Your task to perform on an android device: turn pop-ups on in chrome Image 0: 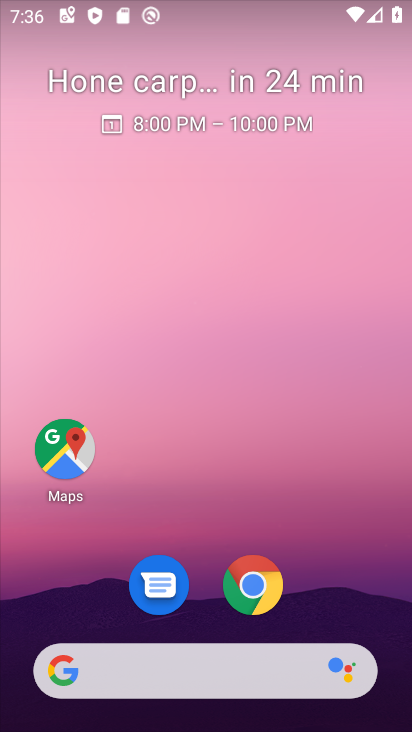
Step 0: click (265, 559)
Your task to perform on an android device: turn pop-ups on in chrome Image 1: 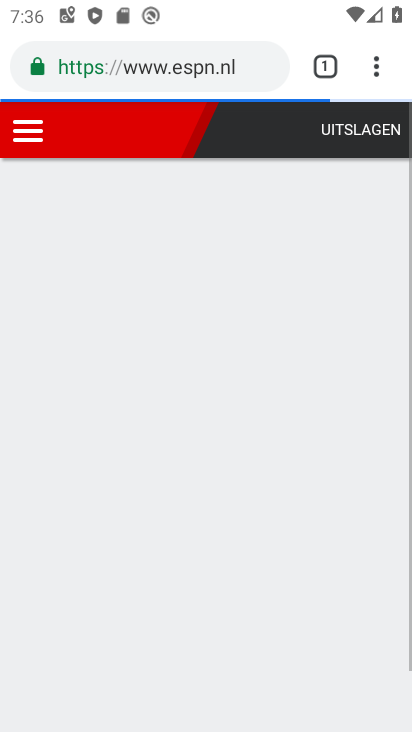
Step 1: click (377, 68)
Your task to perform on an android device: turn pop-ups on in chrome Image 2: 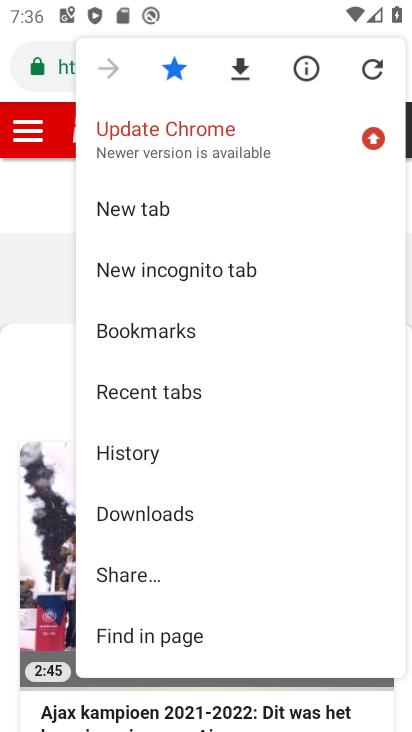
Step 2: drag from (235, 448) to (263, 133)
Your task to perform on an android device: turn pop-ups on in chrome Image 3: 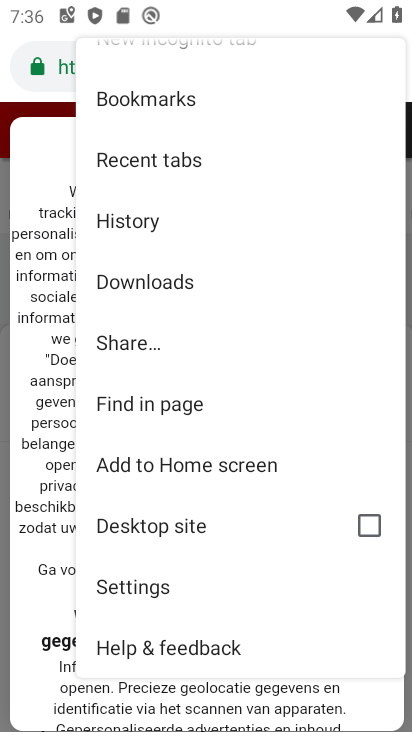
Step 3: click (140, 580)
Your task to perform on an android device: turn pop-ups on in chrome Image 4: 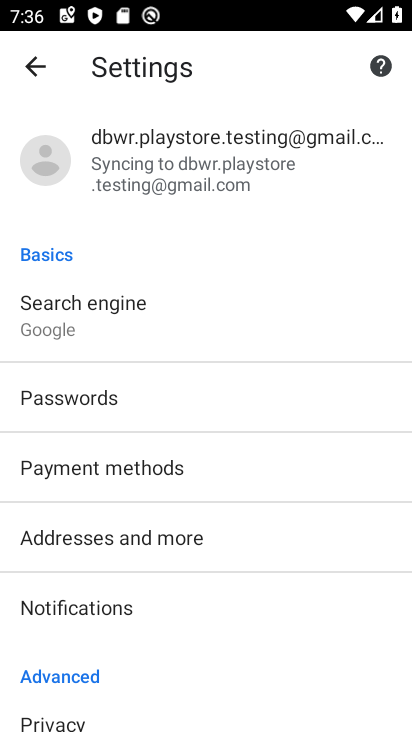
Step 4: drag from (199, 620) to (217, 406)
Your task to perform on an android device: turn pop-ups on in chrome Image 5: 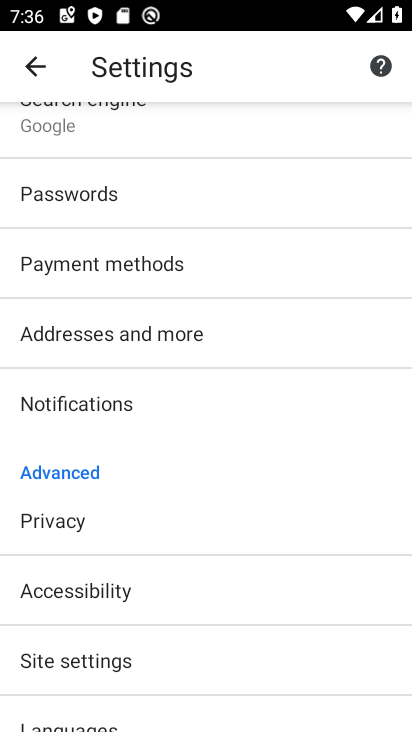
Step 5: click (150, 666)
Your task to perform on an android device: turn pop-ups on in chrome Image 6: 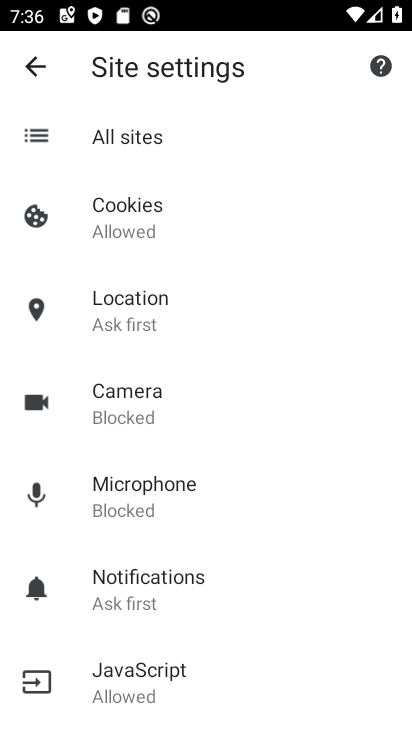
Step 6: drag from (271, 519) to (290, 351)
Your task to perform on an android device: turn pop-ups on in chrome Image 7: 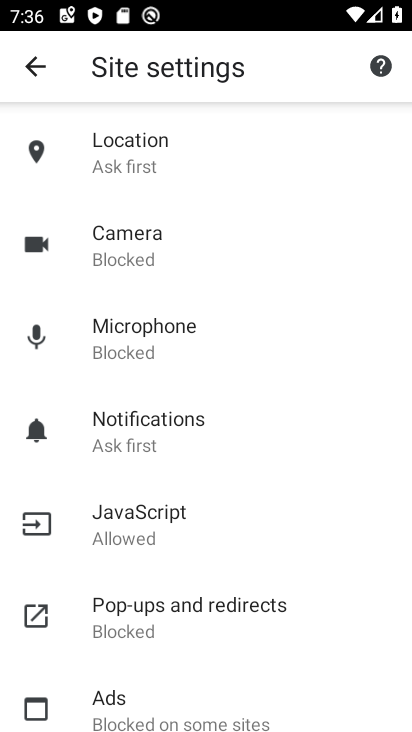
Step 7: click (206, 614)
Your task to perform on an android device: turn pop-ups on in chrome Image 8: 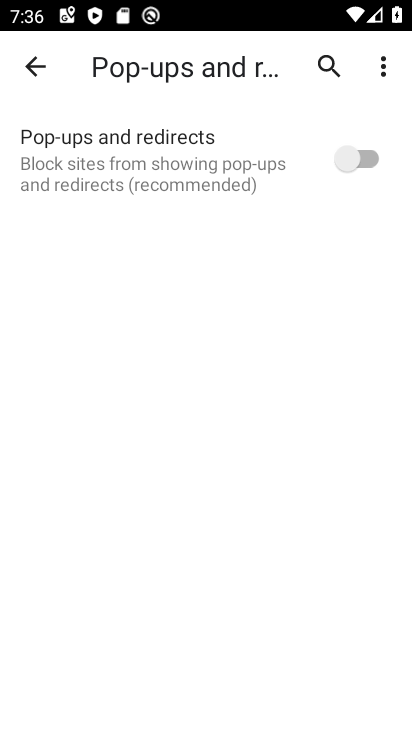
Step 8: click (352, 149)
Your task to perform on an android device: turn pop-ups on in chrome Image 9: 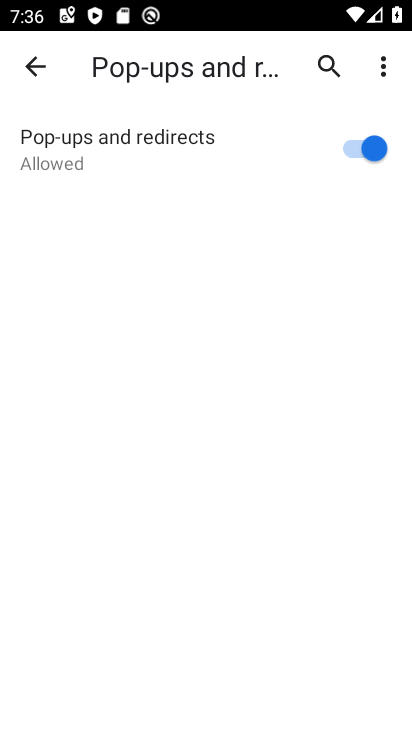
Step 9: task complete